Your task to perform on an android device: set the stopwatch Image 0: 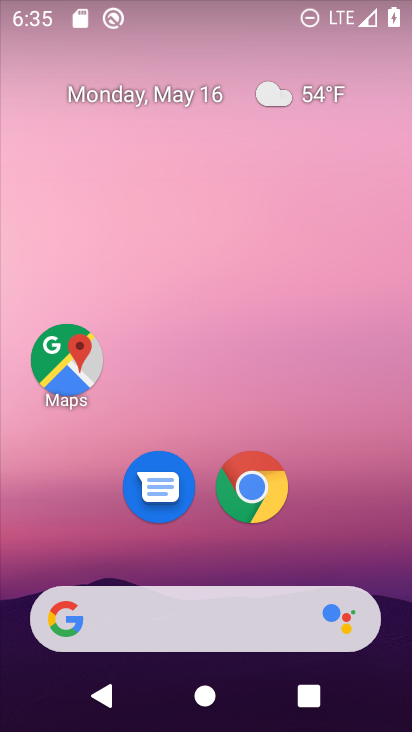
Step 0: drag from (192, 579) to (174, 266)
Your task to perform on an android device: set the stopwatch Image 1: 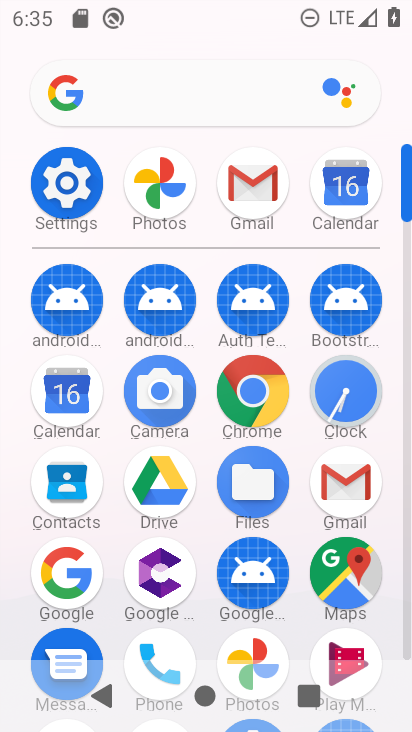
Step 1: click (336, 400)
Your task to perform on an android device: set the stopwatch Image 2: 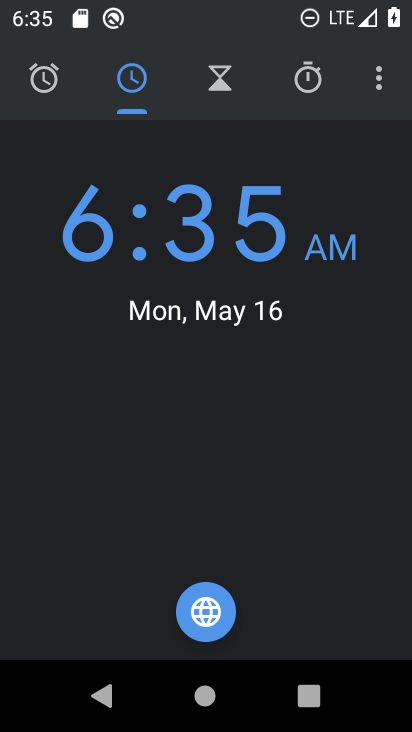
Step 2: click (302, 72)
Your task to perform on an android device: set the stopwatch Image 3: 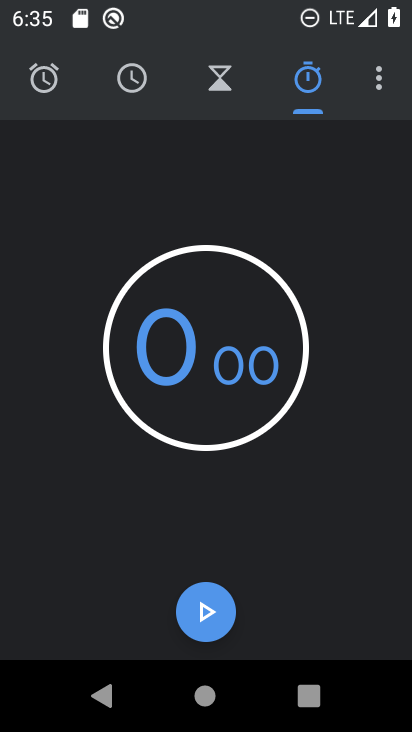
Step 3: click (206, 605)
Your task to perform on an android device: set the stopwatch Image 4: 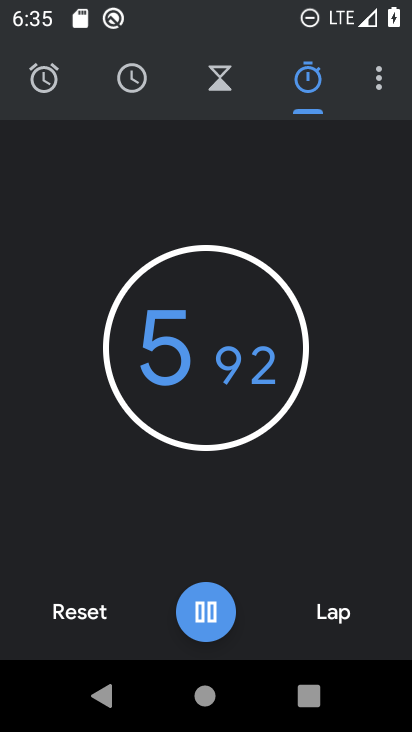
Step 4: click (201, 612)
Your task to perform on an android device: set the stopwatch Image 5: 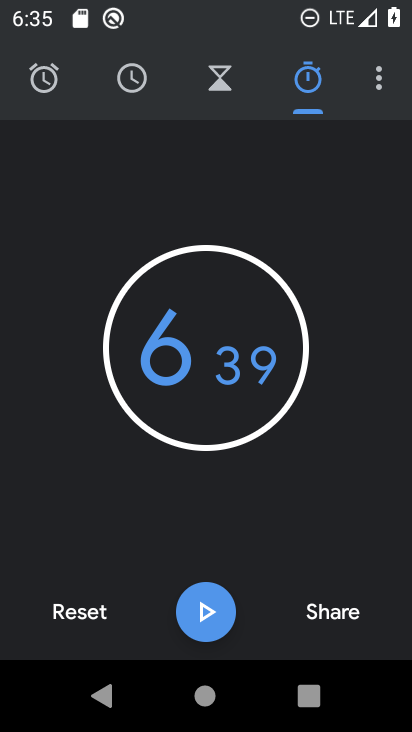
Step 5: task complete